Your task to perform on an android device: toggle sleep mode Image 0: 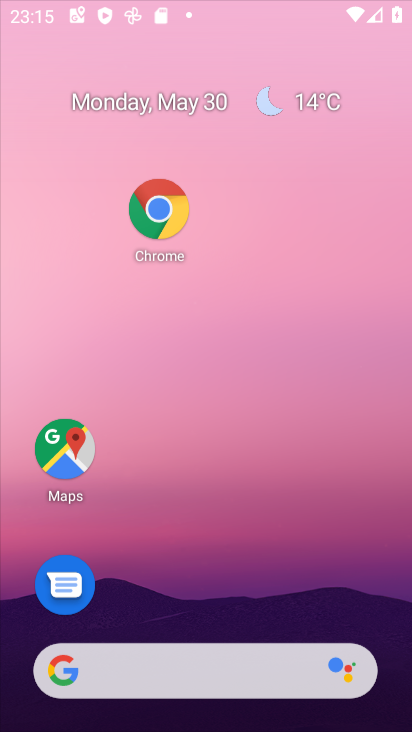
Step 0: click (404, 328)
Your task to perform on an android device: toggle sleep mode Image 1: 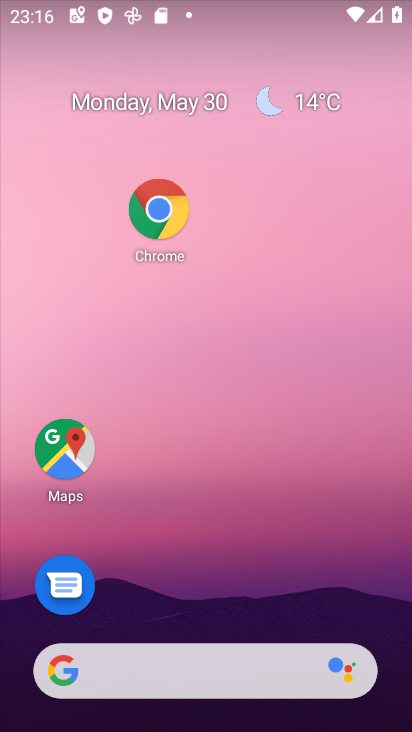
Step 1: drag from (260, 565) to (409, 120)
Your task to perform on an android device: toggle sleep mode Image 2: 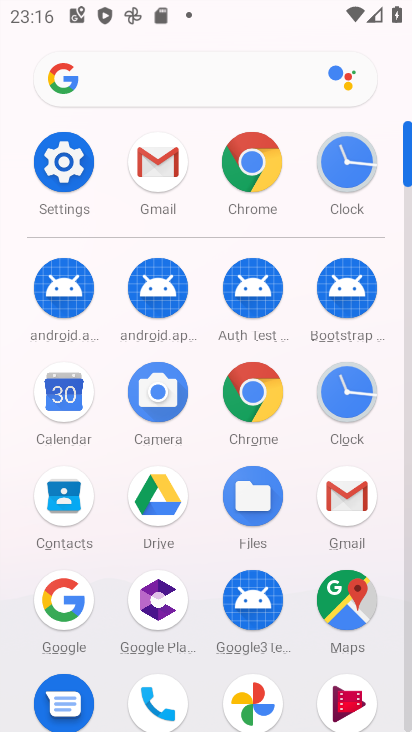
Step 2: click (52, 156)
Your task to perform on an android device: toggle sleep mode Image 3: 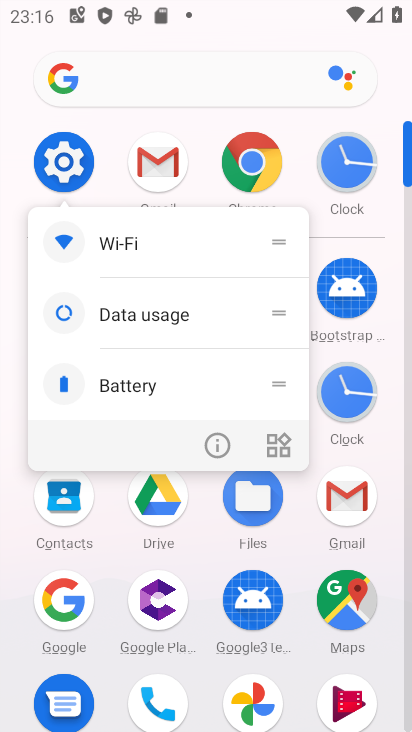
Step 3: click (219, 440)
Your task to perform on an android device: toggle sleep mode Image 4: 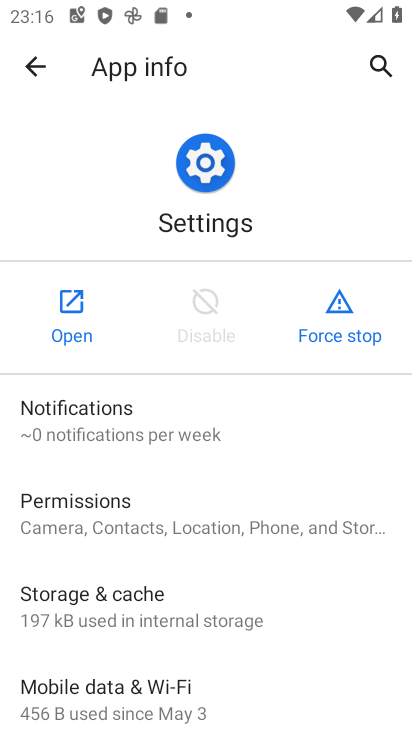
Step 4: click (83, 320)
Your task to perform on an android device: toggle sleep mode Image 5: 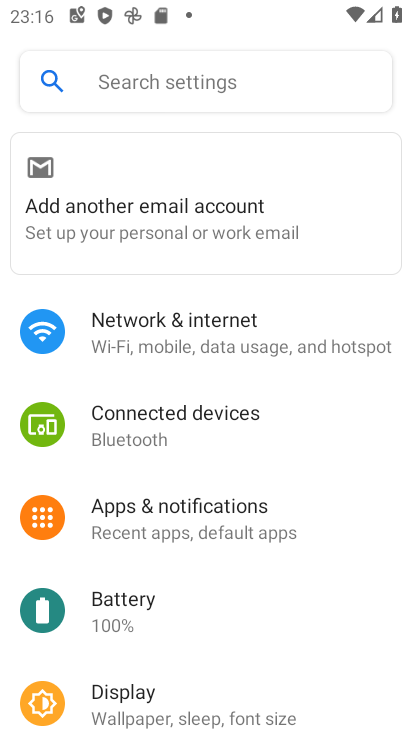
Step 5: click (156, 701)
Your task to perform on an android device: toggle sleep mode Image 6: 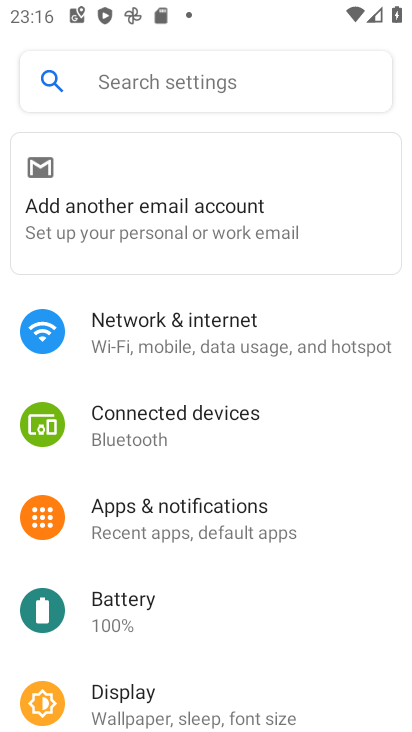
Step 6: click (153, 699)
Your task to perform on an android device: toggle sleep mode Image 7: 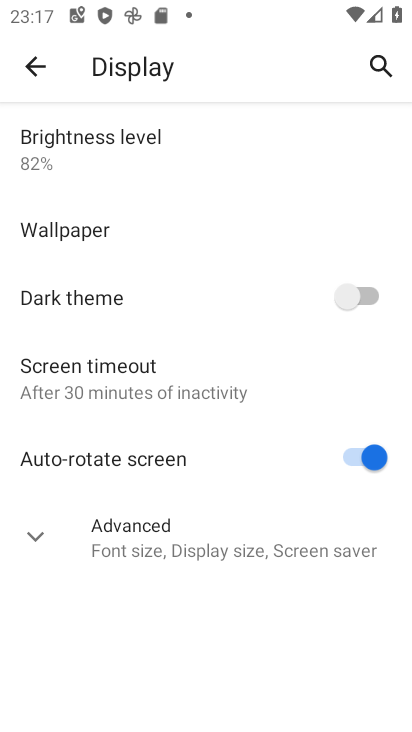
Step 7: click (161, 648)
Your task to perform on an android device: toggle sleep mode Image 8: 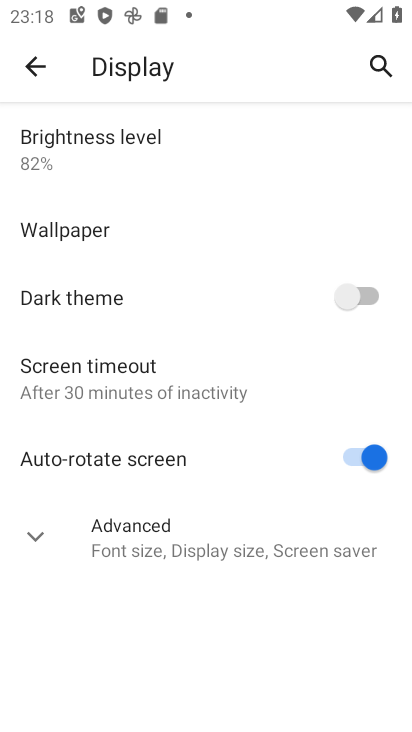
Step 8: click (132, 376)
Your task to perform on an android device: toggle sleep mode Image 9: 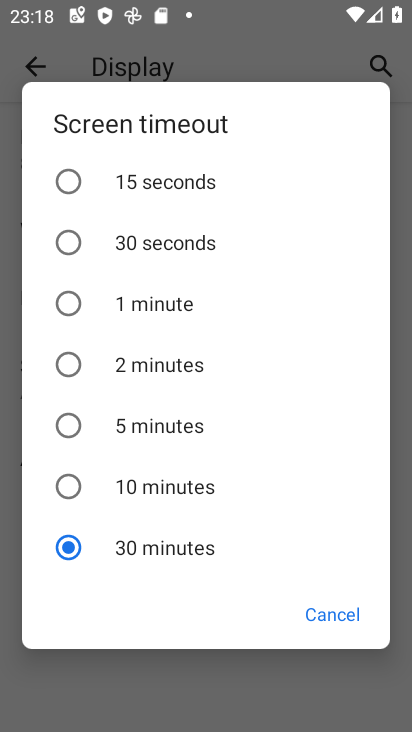
Step 9: task complete